Your task to perform on an android device: Show me productivity apps on the Play Store Image 0: 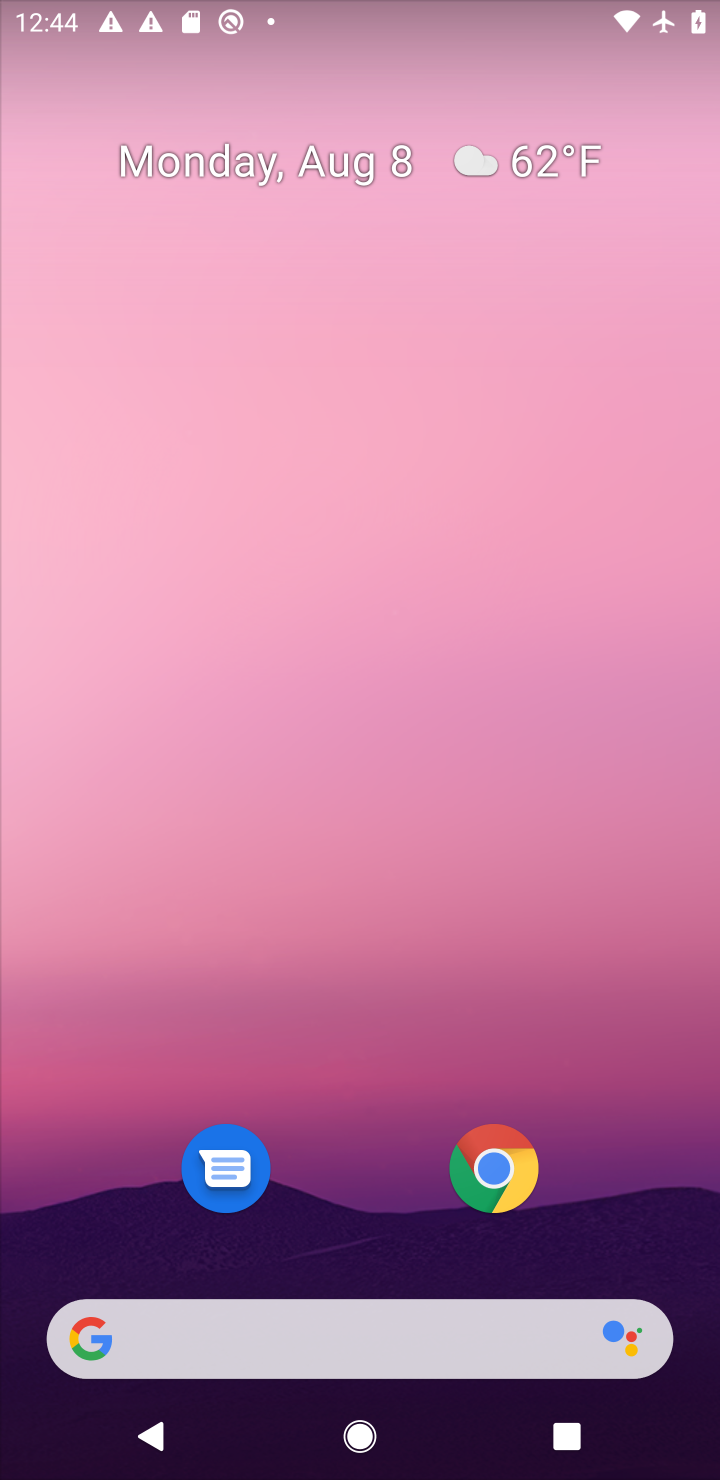
Step 0: drag from (354, 787) to (339, 9)
Your task to perform on an android device: Show me productivity apps on the Play Store Image 1: 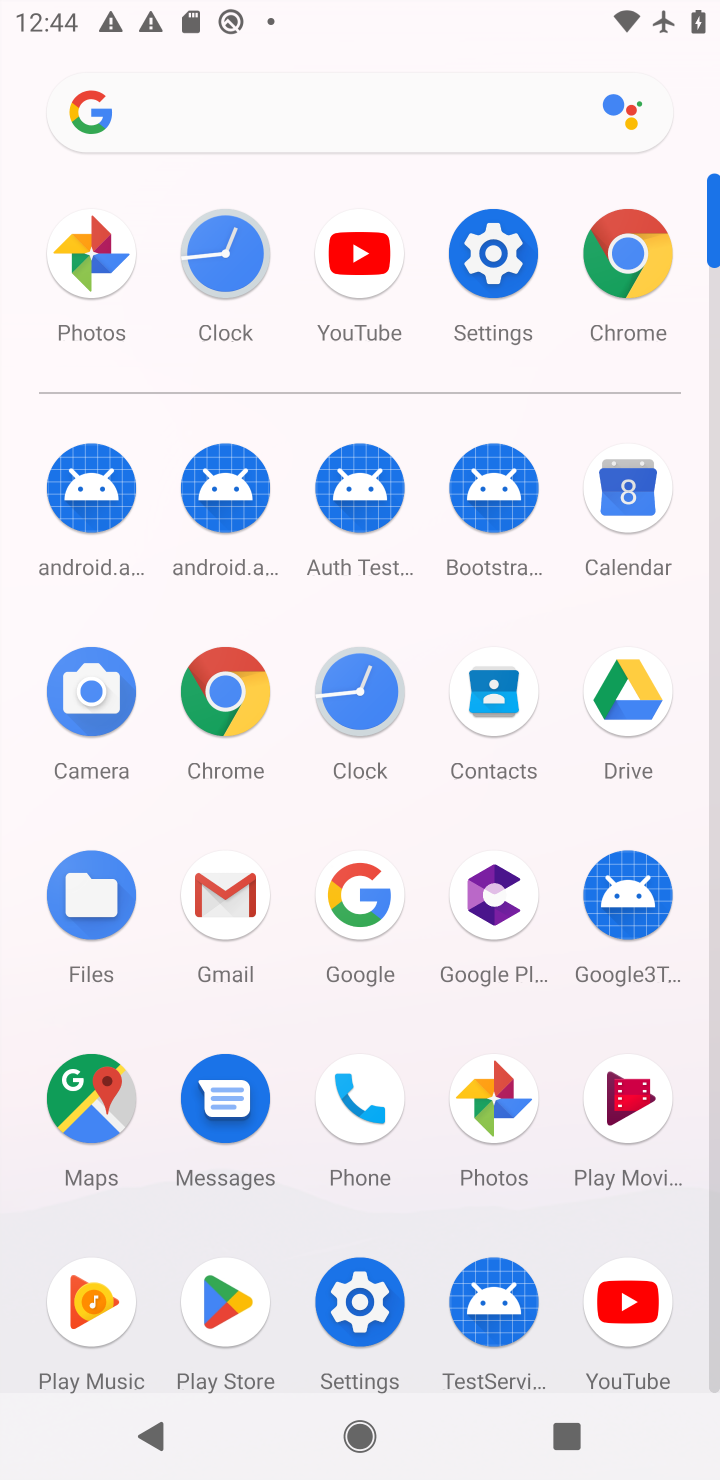
Step 1: click (191, 1346)
Your task to perform on an android device: Show me productivity apps on the Play Store Image 2: 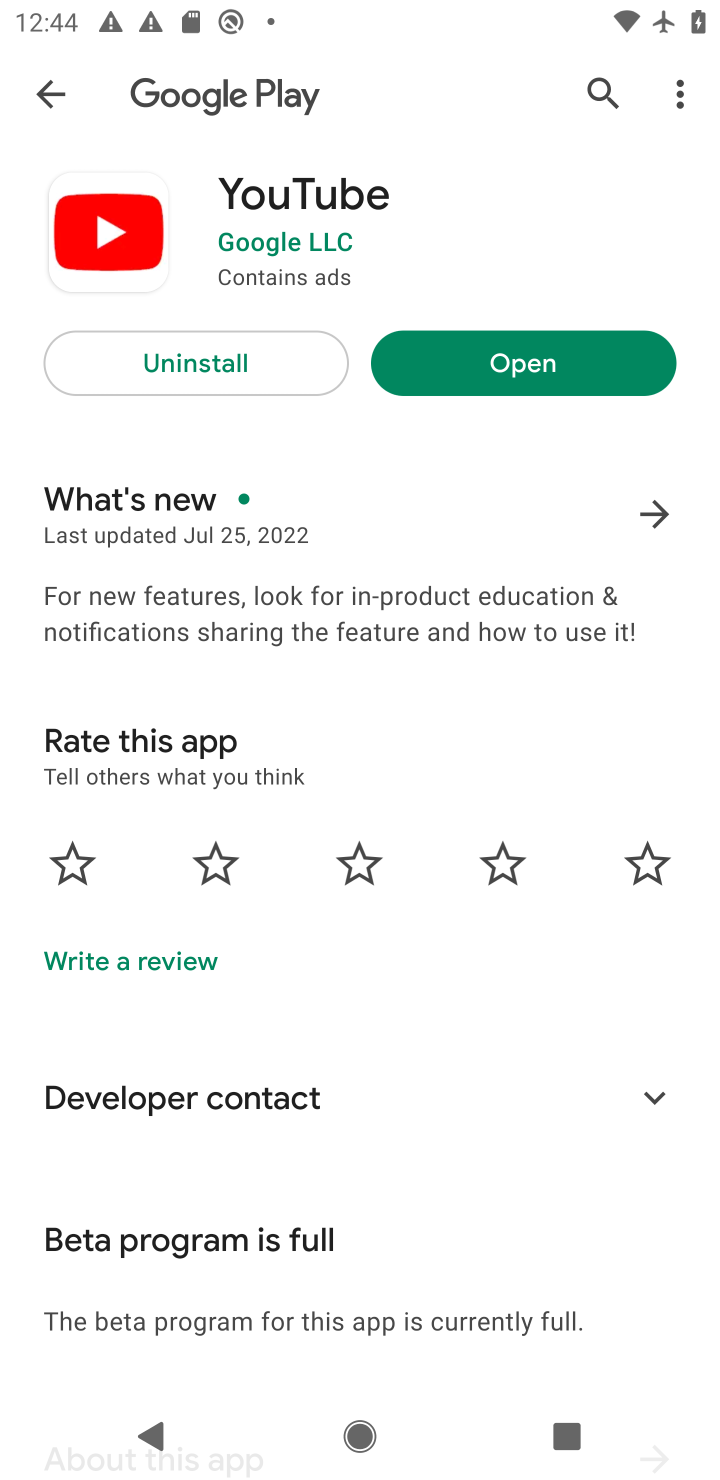
Step 2: click (27, 116)
Your task to perform on an android device: Show me productivity apps on the Play Store Image 3: 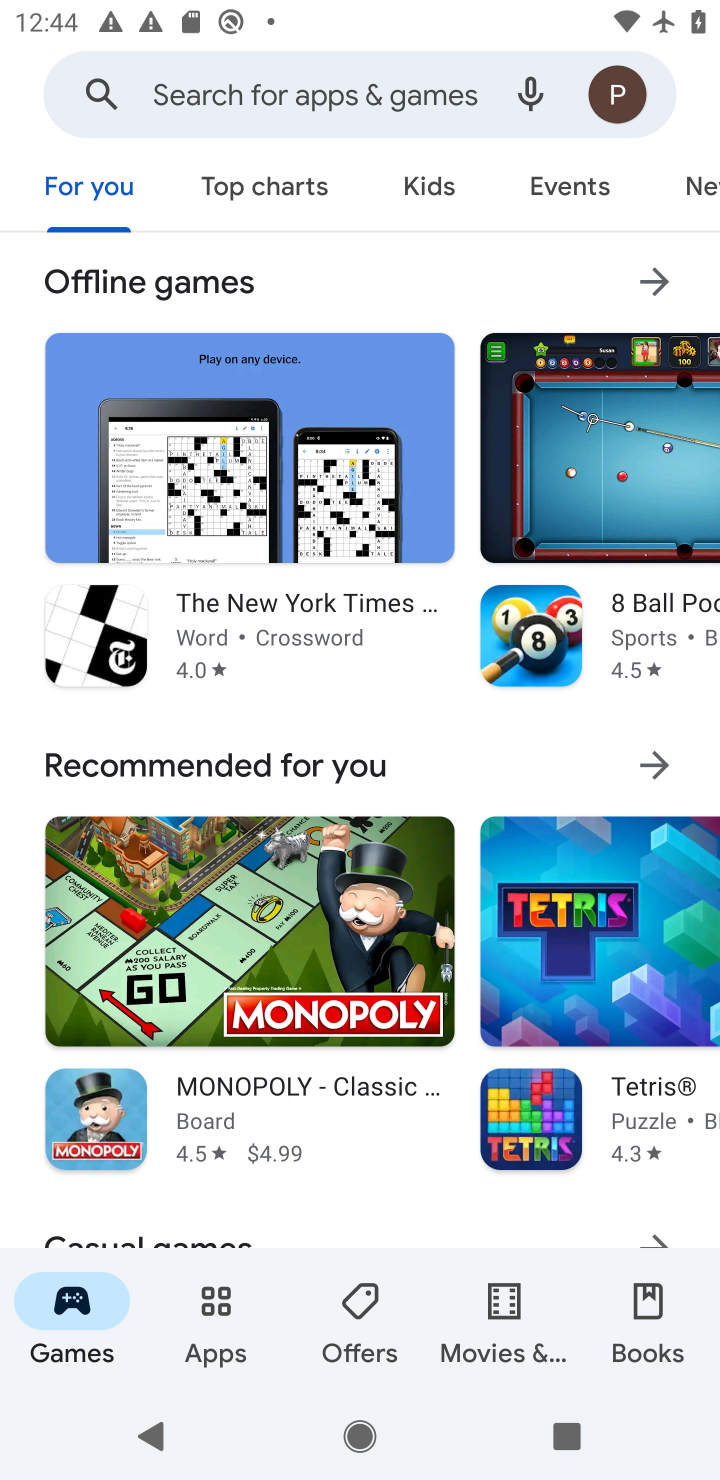
Step 3: click (215, 1319)
Your task to perform on an android device: Show me productivity apps on the Play Store Image 4: 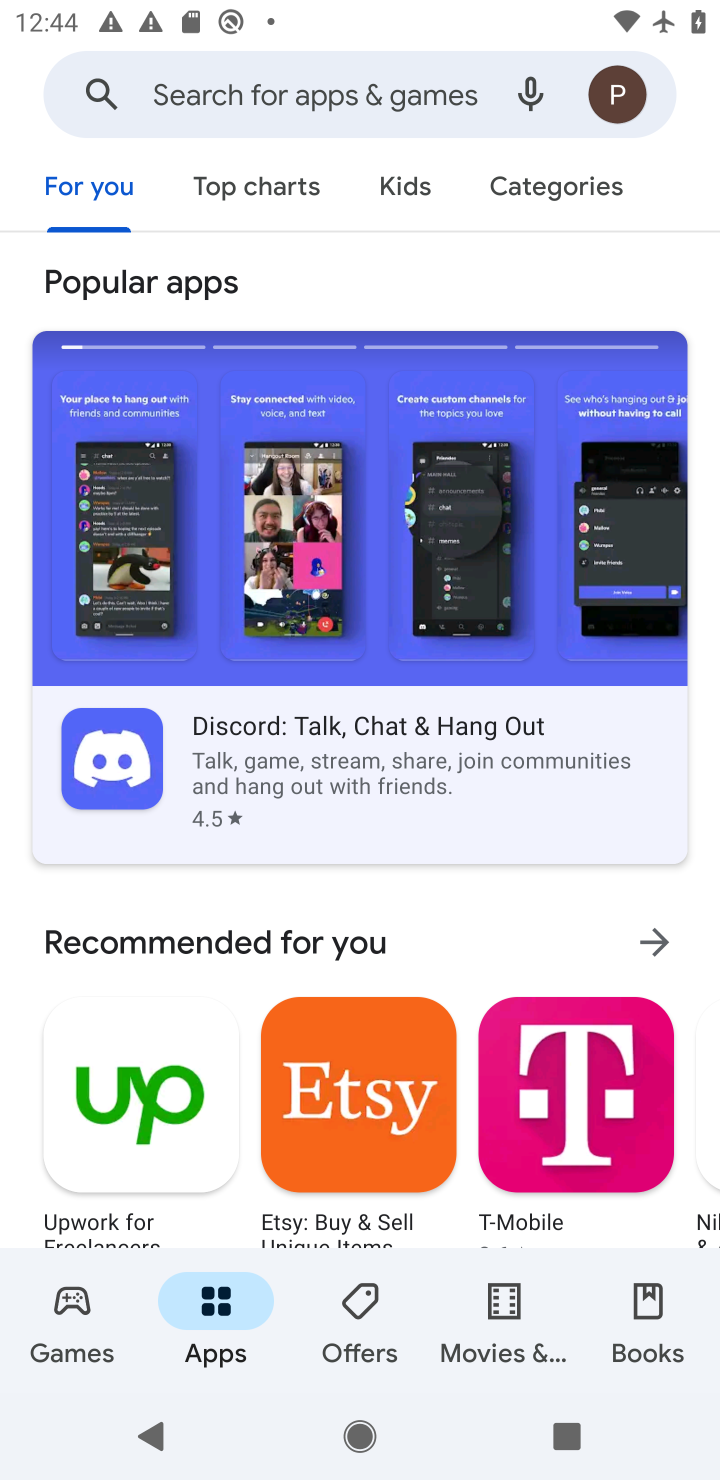
Step 4: click (285, 202)
Your task to perform on an android device: Show me productivity apps on the Play Store Image 5: 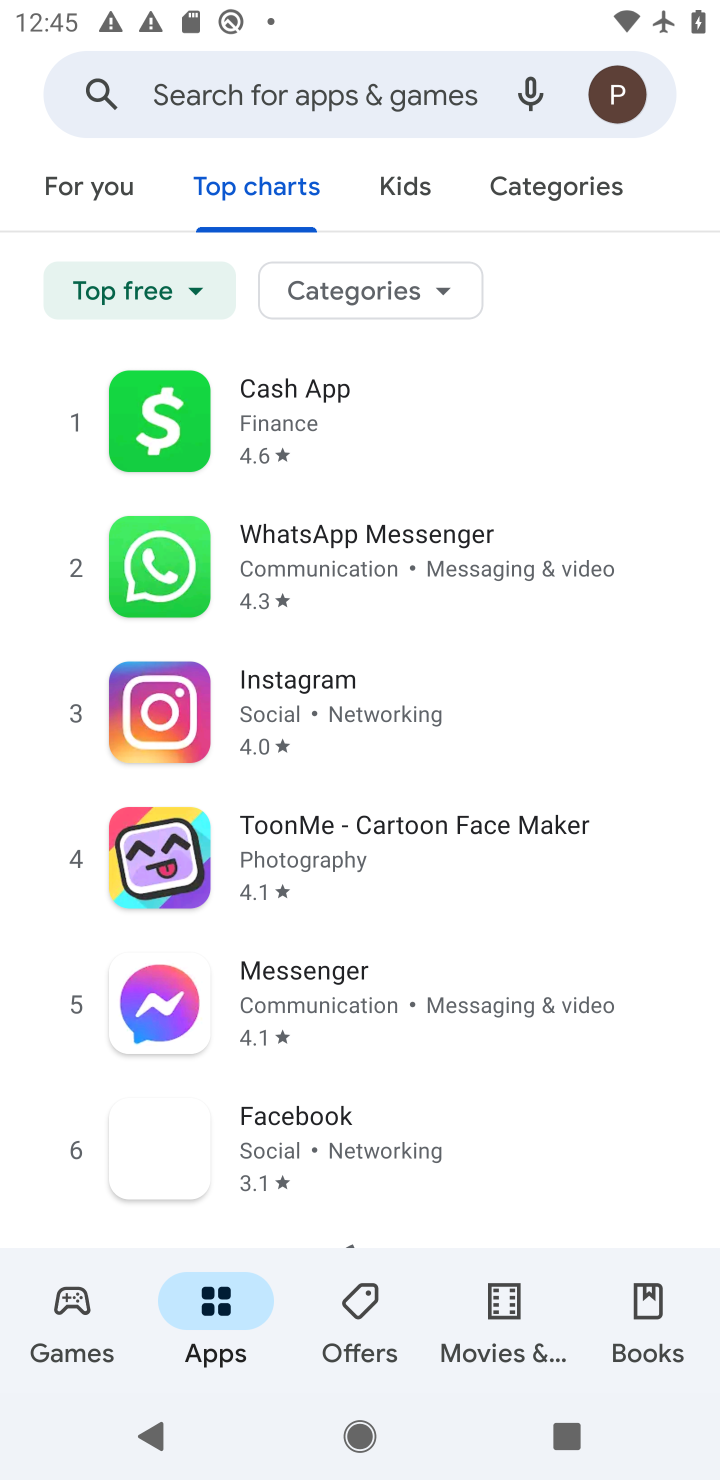
Step 5: click (385, 287)
Your task to perform on an android device: Show me productivity apps on the Play Store Image 6: 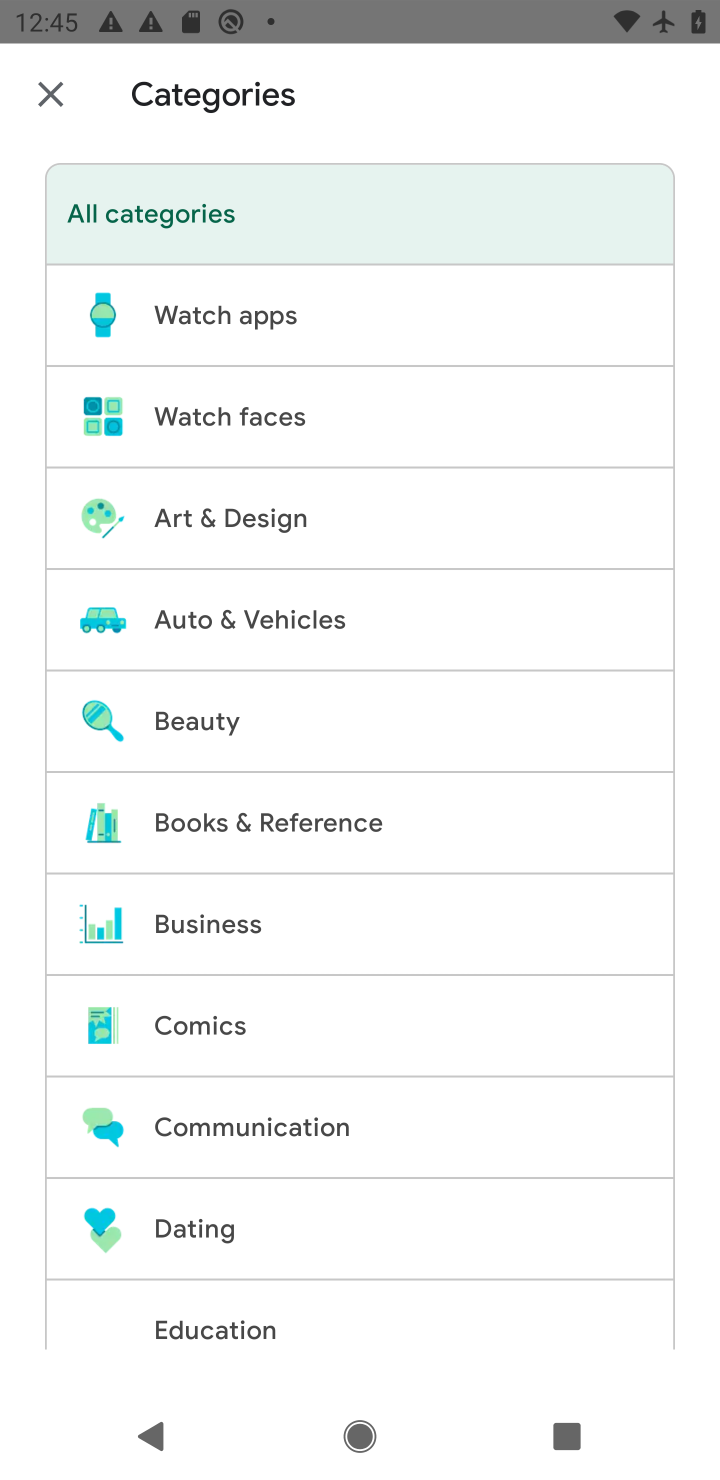
Step 6: drag from (322, 1272) to (322, 234)
Your task to perform on an android device: Show me productivity apps on the Play Store Image 7: 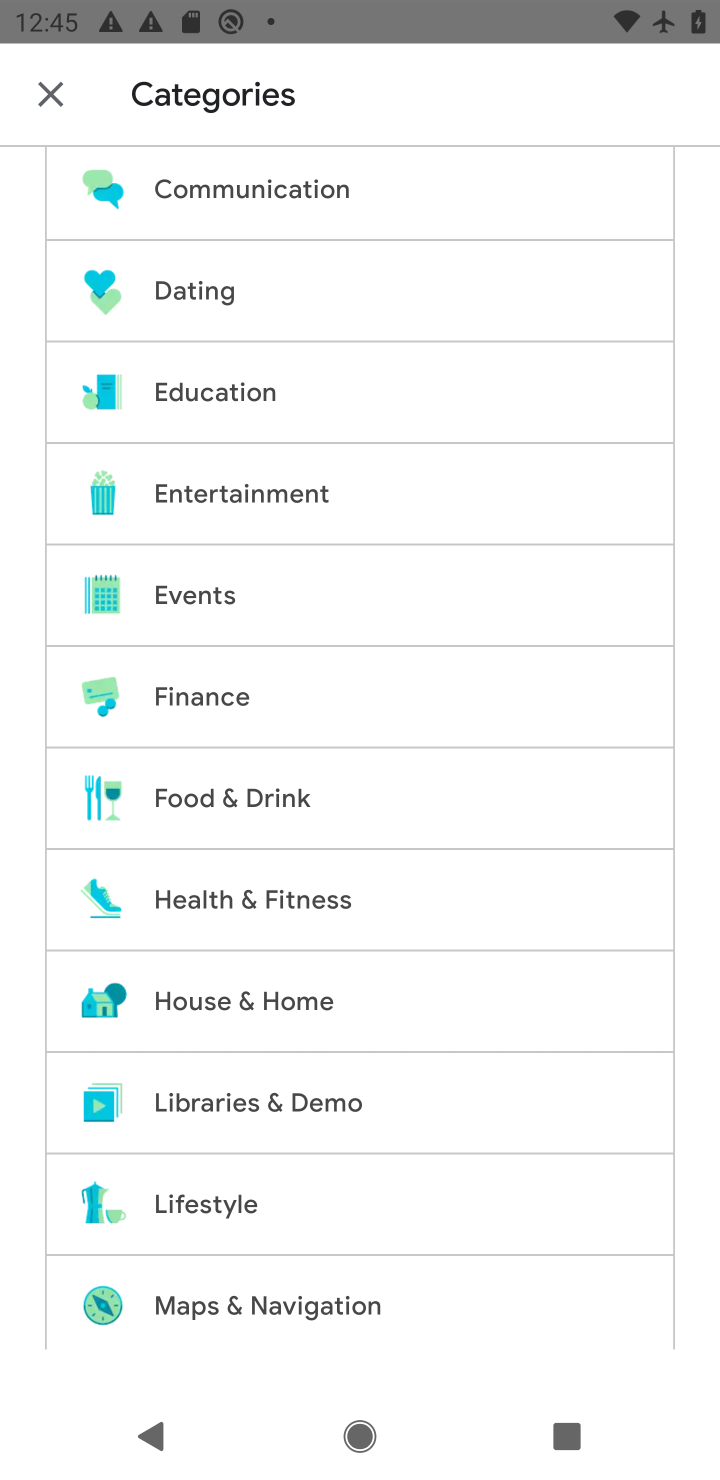
Step 7: drag from (248, 1307) to (255, 578)
Your task to perform on an android device: Show me productivity apps on the Play Store Image 8: 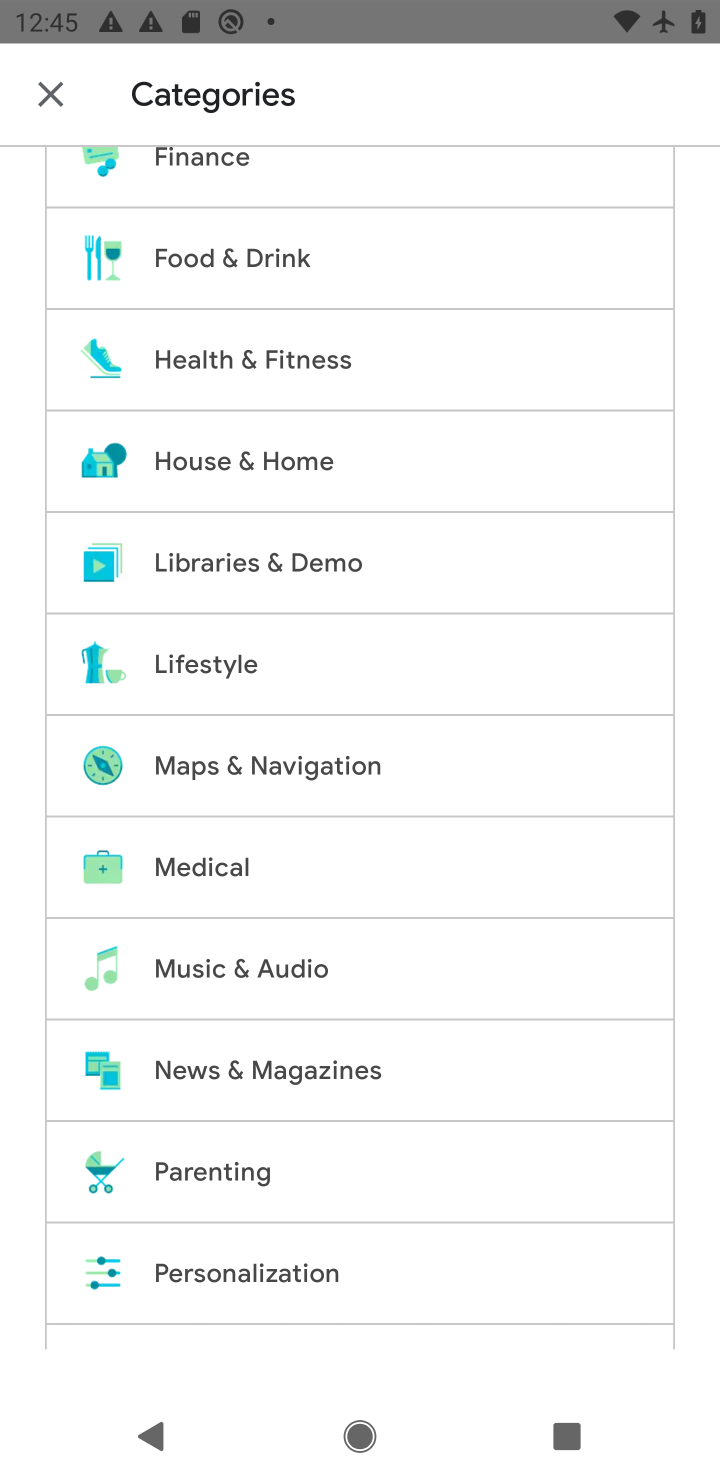
Step 8: drag from (227, 1260) to (262, 623)
Your task to perform on an android device: Show me productivity apps on the Play Store Image 9: 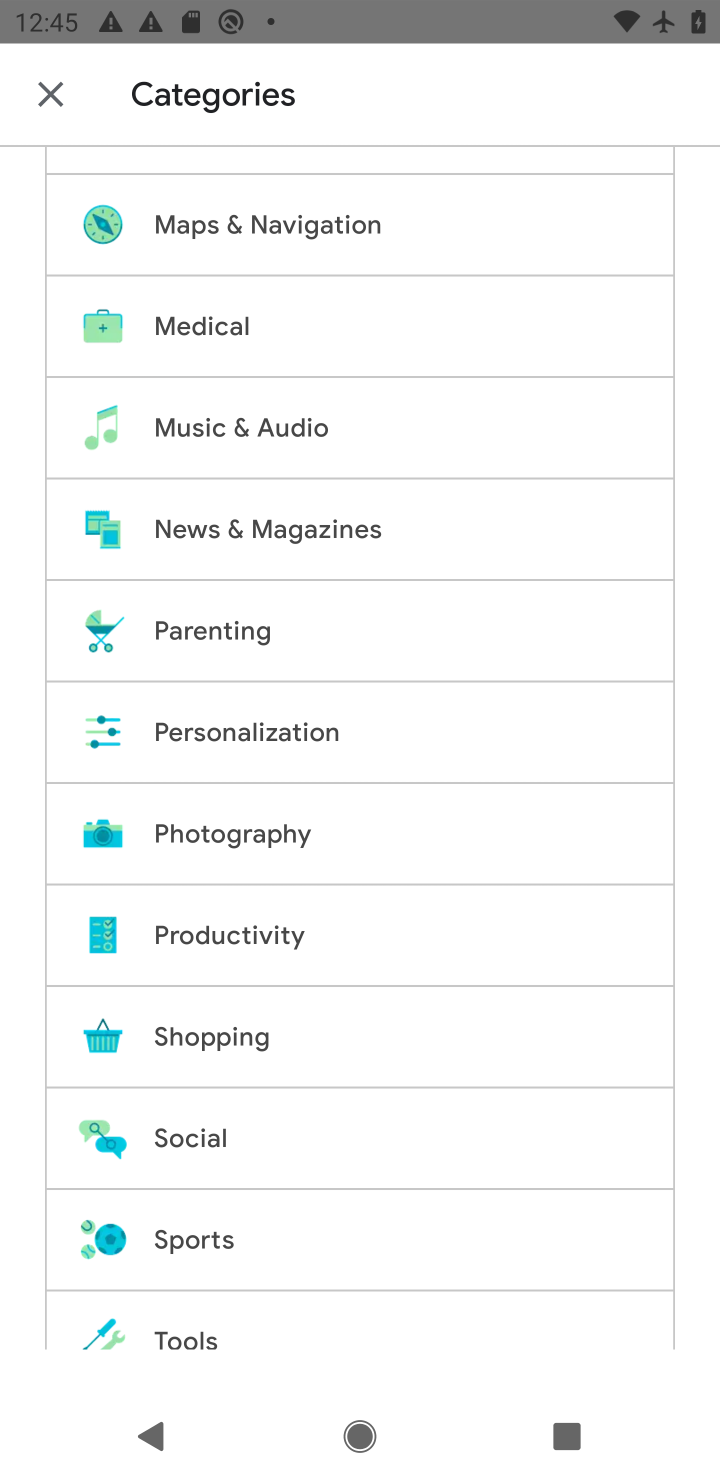
Step 9: click (344, 947)
Your task to perform on an android device: Show me productivity apps on the Play Store Image 10: 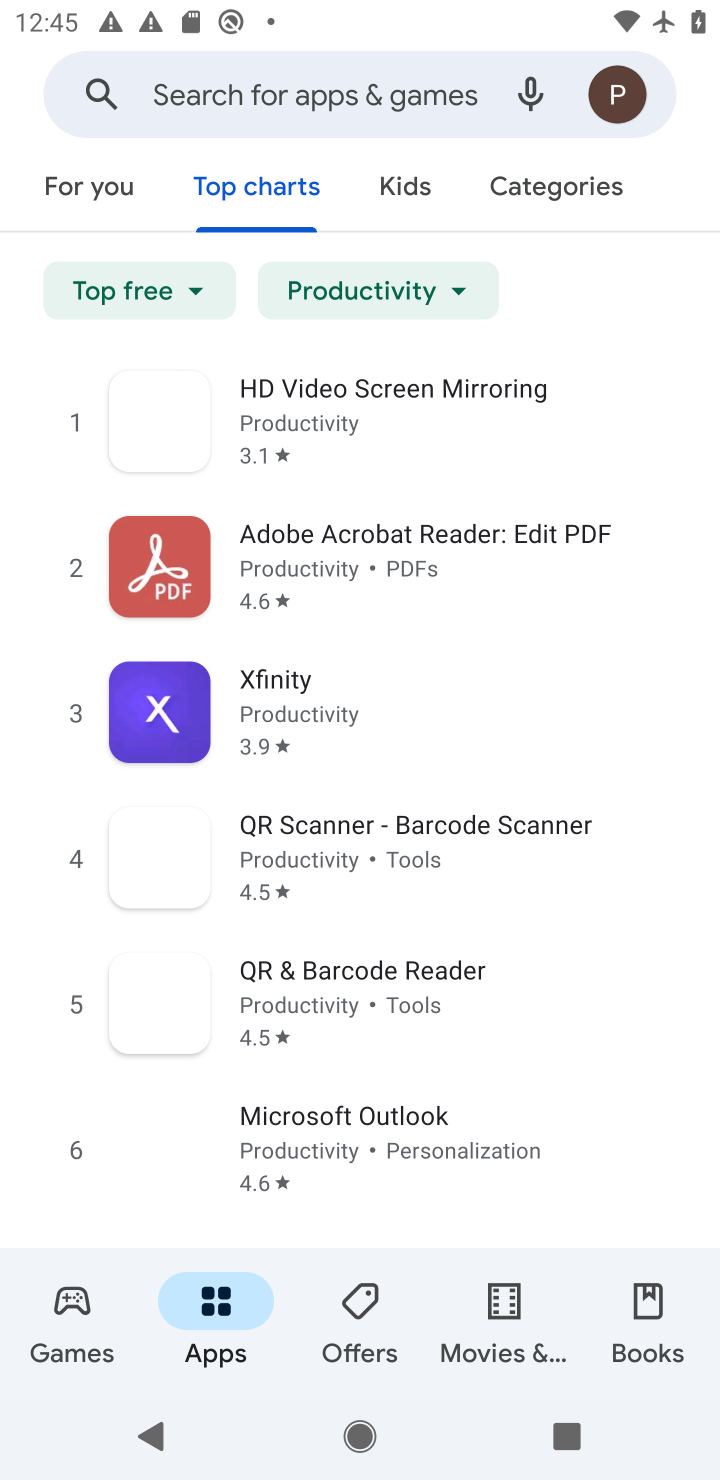
Step 10: task complete